Your task to perform on an android device: check android version Image 0: 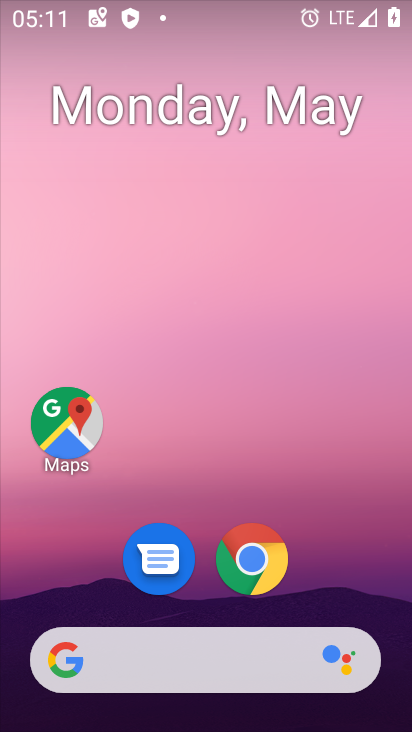
Step 0: drag from (333, 669) to (382, 171)
Your task to perform on an android device: check android version Image 1: 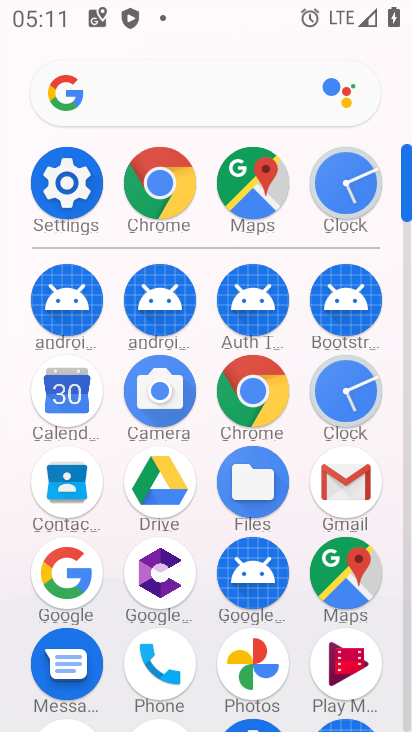
Step 1: click (60, 173)
Your task to perform on an android device: check android version Image 2: 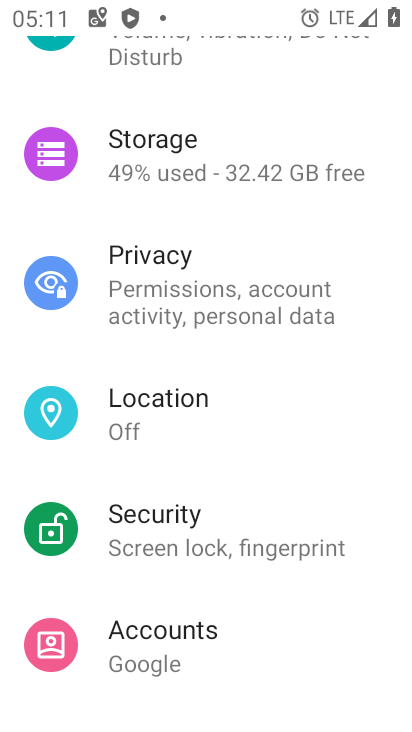
Step 2: drag from (264, 719) to (306, 82)
Your task to perform on an android device: check android version Image 3: 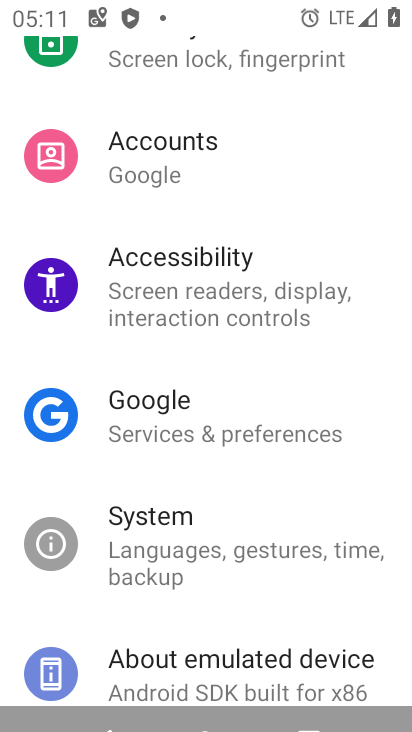
Step 3: click (249, 647)
Your task to perform on an android device: check android version Image 4: 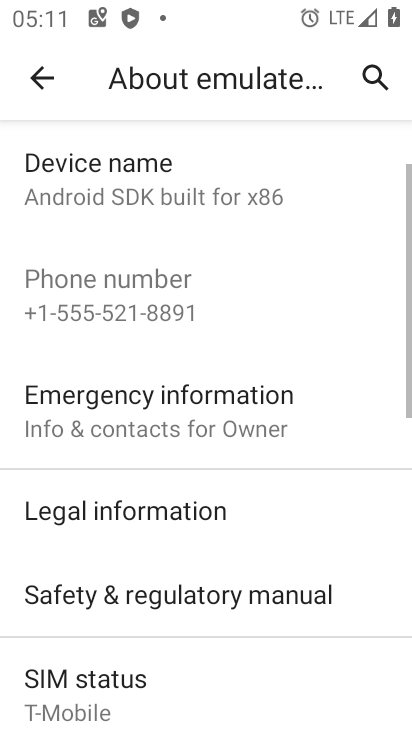
Step 4: drag from (174, 669) to (181, 66)
Your task to perform on an android device: check android version Image 5: 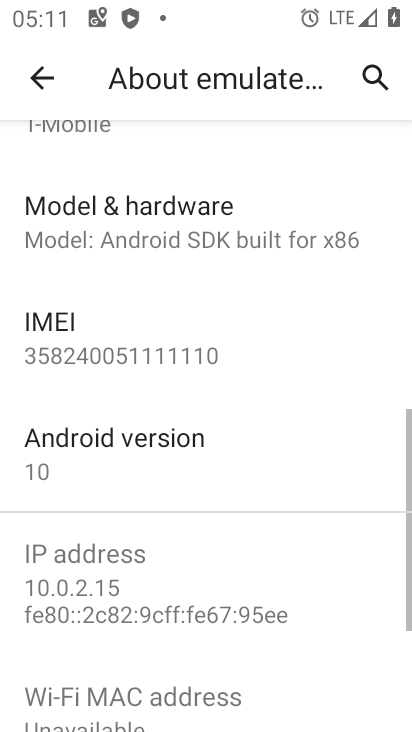
Step 5: click (177, 447)
Your task to perform on an android device: check android version Image 6: 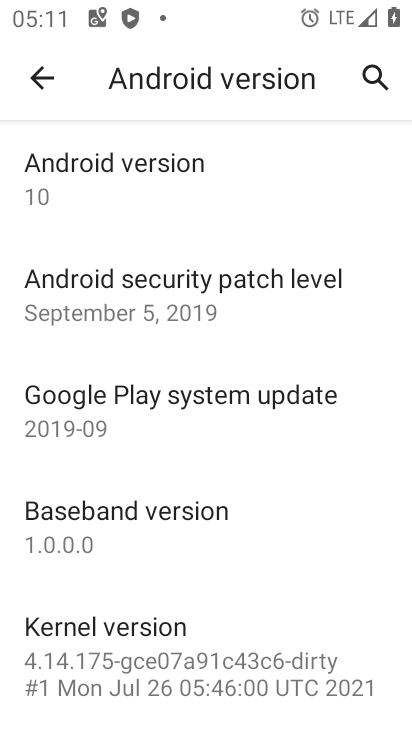
Step 6: task complete